Your task to perform on an android device: set an alarm Image 0: 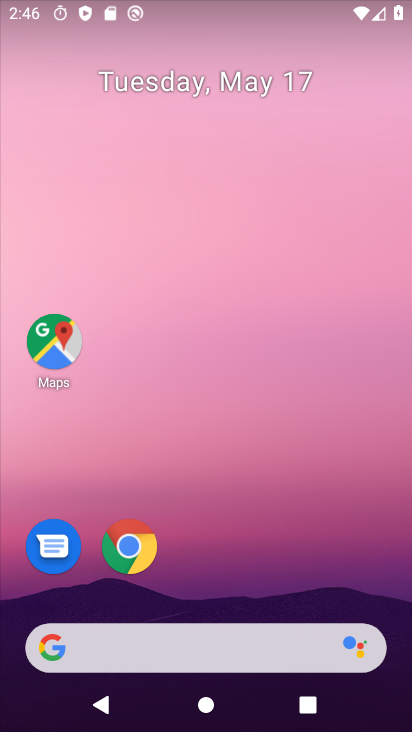
Step 0: drag from (214, 373) to (236, 225)
Your task to perform on an android device: set an alarm Image 1: 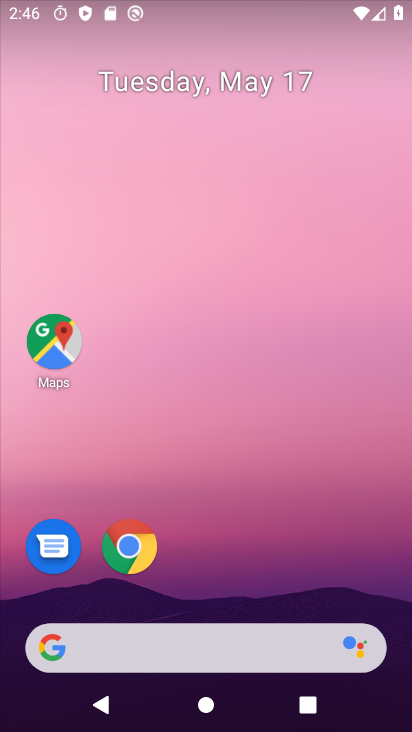
Step 1: drag from (233, 650) to (286, 252)
Your task to perform on an android device: set an alarm Image 2: 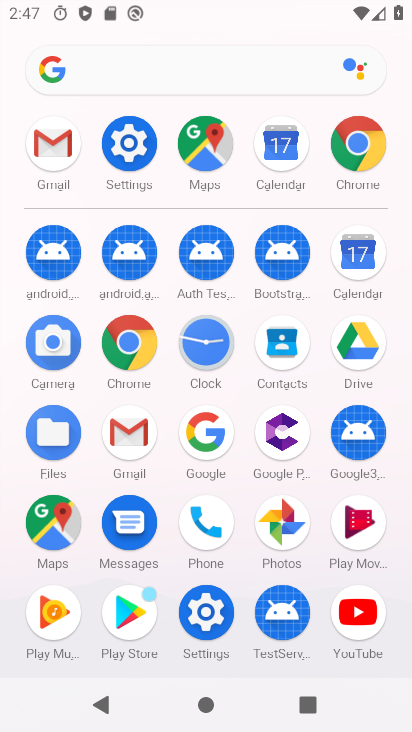
Step 2: click (218, 341)
Your task to perform on an android device: set an alarm Image 3: 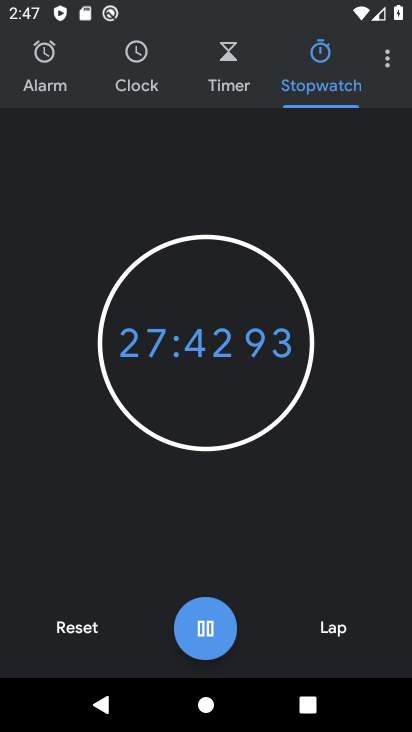
Step 3: click (55, 90)
Your task to perform on an android device: set an alarm Image 4: 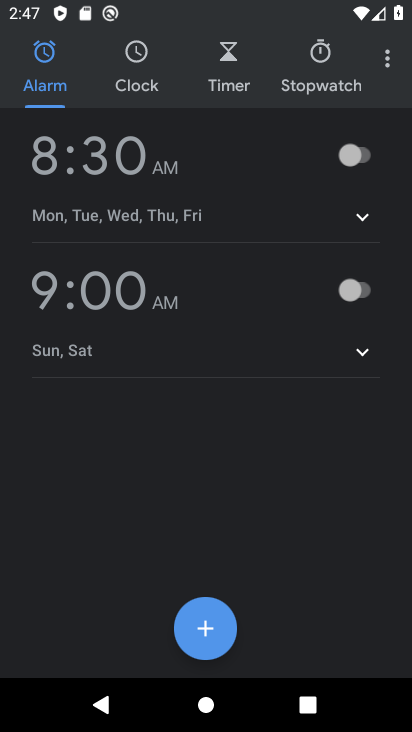
Step 4: task complete